Your task to perform on an android device: turn on showing notifications on the lock screen Image 0: 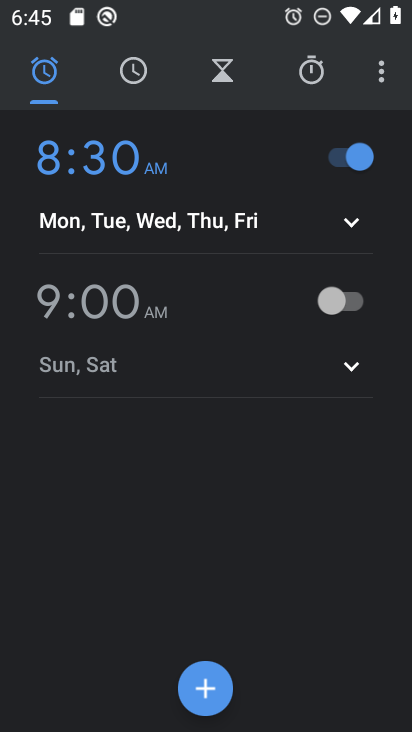
Step 0: press home button
Your task to perform on an android device: turn on showing notifications on the lock screen Image 1: 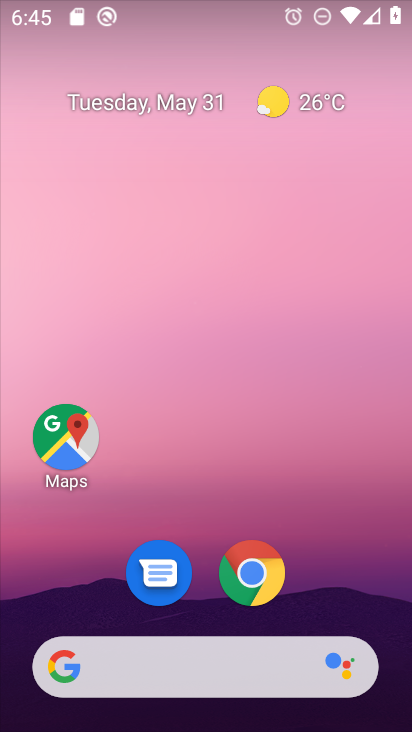
Step 1: drag from (388, 621) to (254, 3)
Your task to perform on an android device: turn on showing notifications on the lock screen Image 2: 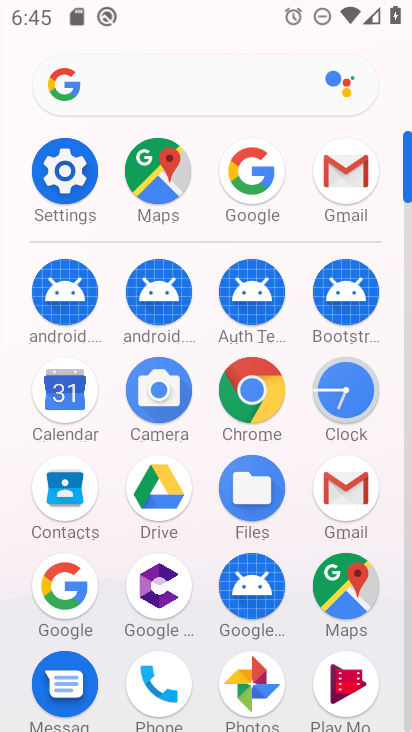
Step 2: click (11, 172)
Your task to perform on an android device: turn on showing notifications on the lock screen Image 3: 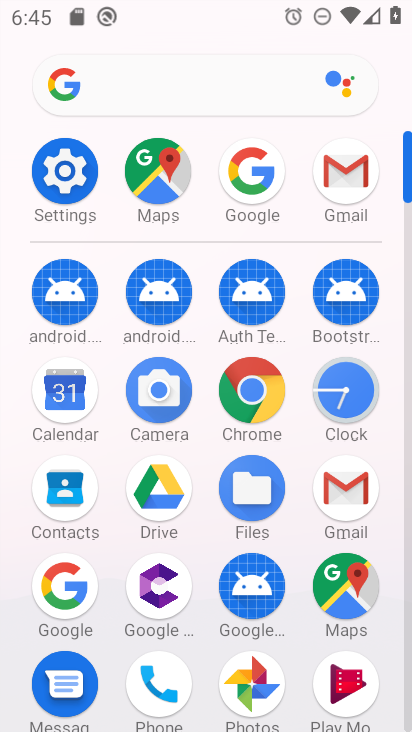
Step 3: click (73, 172)
Your task to perform on an android device: turn on showing notifications on the lock screen Image 4: 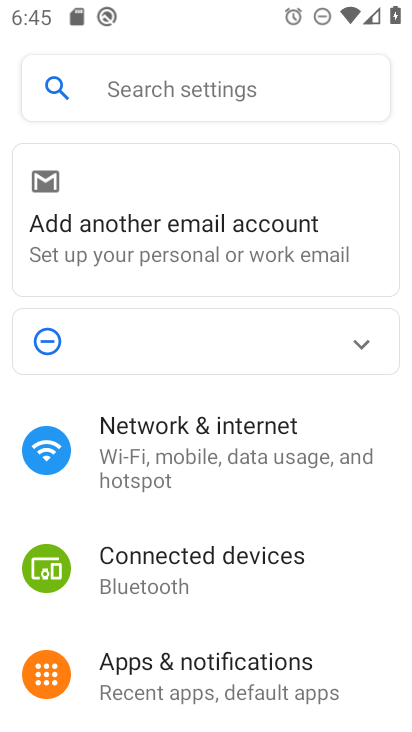
Step 4: click (223, 668)
Your task to perform on an android device: turn on showing notifications on the lock screen Image 5: 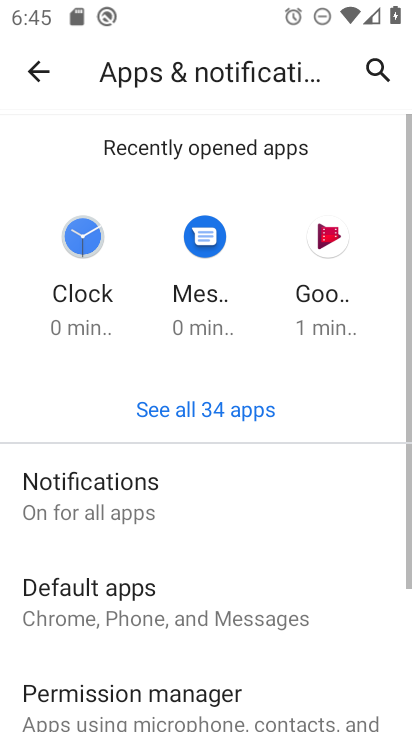
Step 5: drag from (227, 658) to (218, 255)
Your task to perform on an android device: turn on showing notifications on the lock screen Image 6: 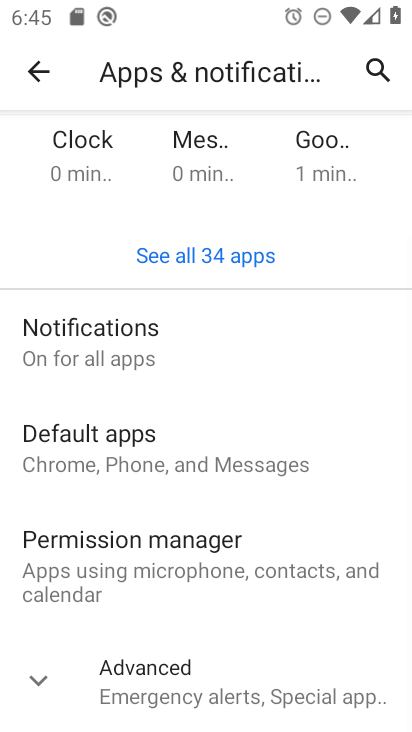
Step 6: click (122, 325)
Your task to perform on an android device: turn on showing notifications on the lock screen Image 7: 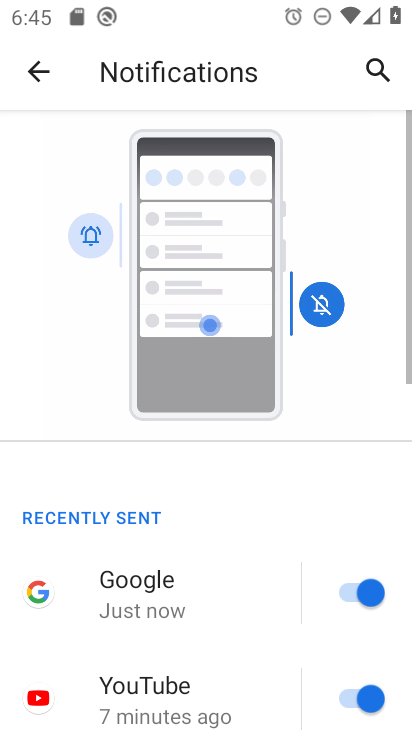
Step 7: drag from (211, 648) to (241, 110)
Your task to perform on an android device: turn on showing notifications on the lock screen Image 8: 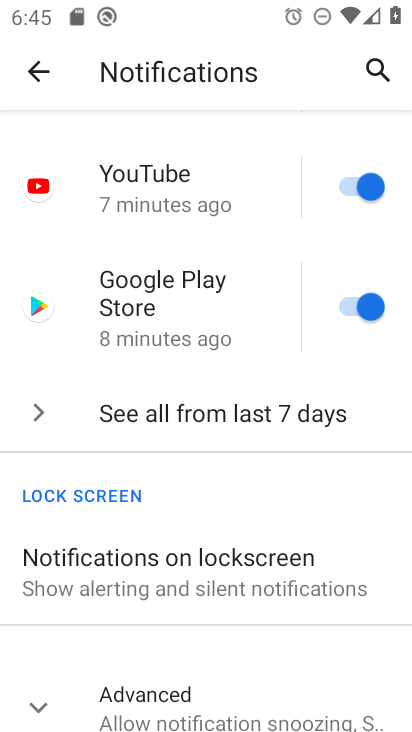
Step 8: click (212, 560)
Your task to perform on an android device: turn on showing notifications on the lock screen Image 9: 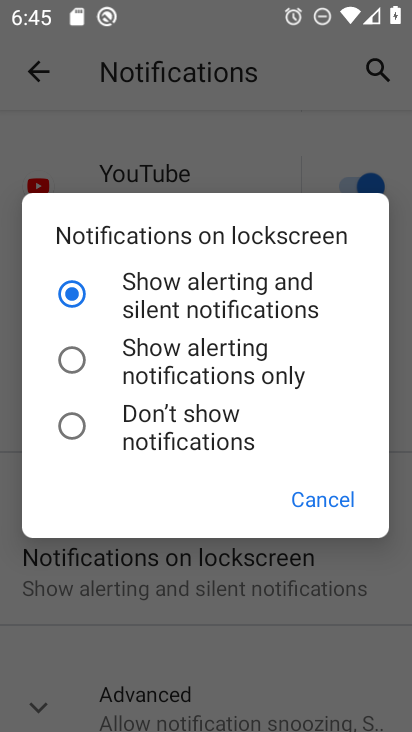
Step 9: task complete